Your task to perform on an android device: Do I have any events this weekend? Image 0: 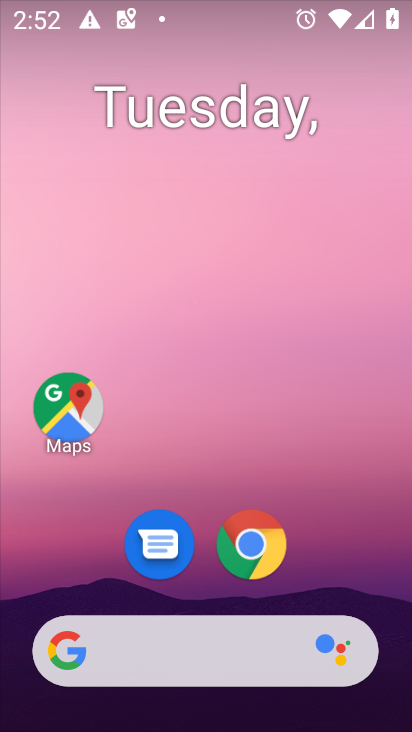
Step 0: drag from (352, 579) to (298, 85)
Your task to perform on an android device: Do I have any events this weekend? Image 1: 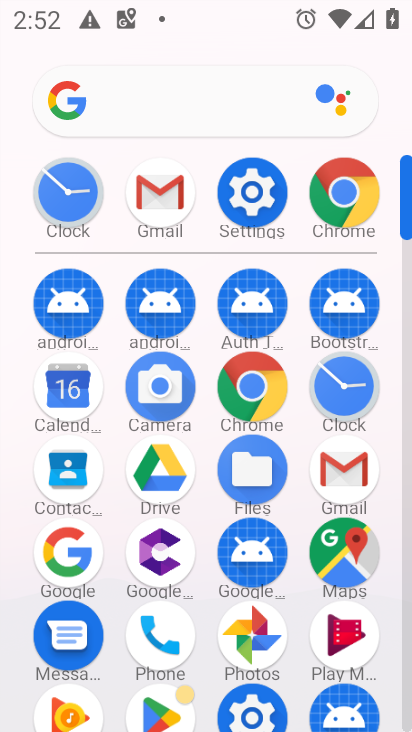
Step 1: click (80, 399)
Your task to perform on an android device: Do I have any events this weekend? Image 2: 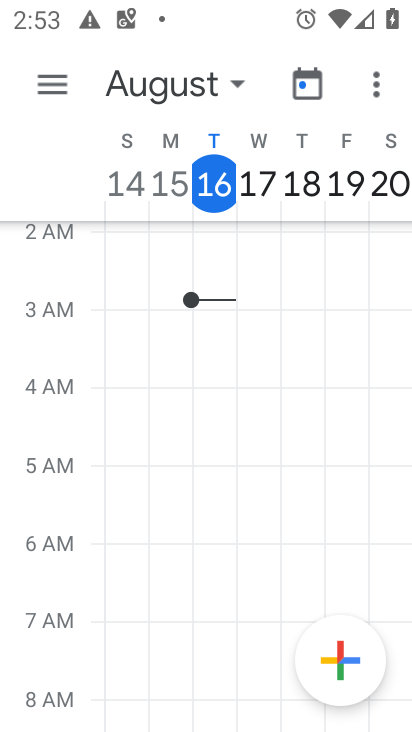
Step 2: click (379, 177)
Your task to perform on an android device: Do I have any events this weekend? Image 3: 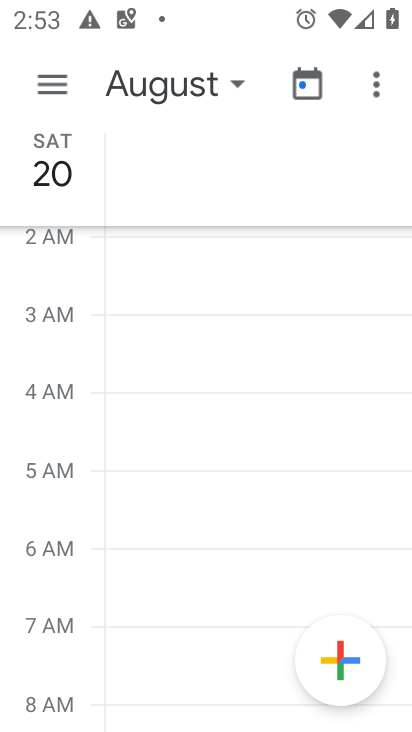
Step 3: task complete